Your task to perform on an android device: What does the iPhone 8 look like on eBay? Image 0: 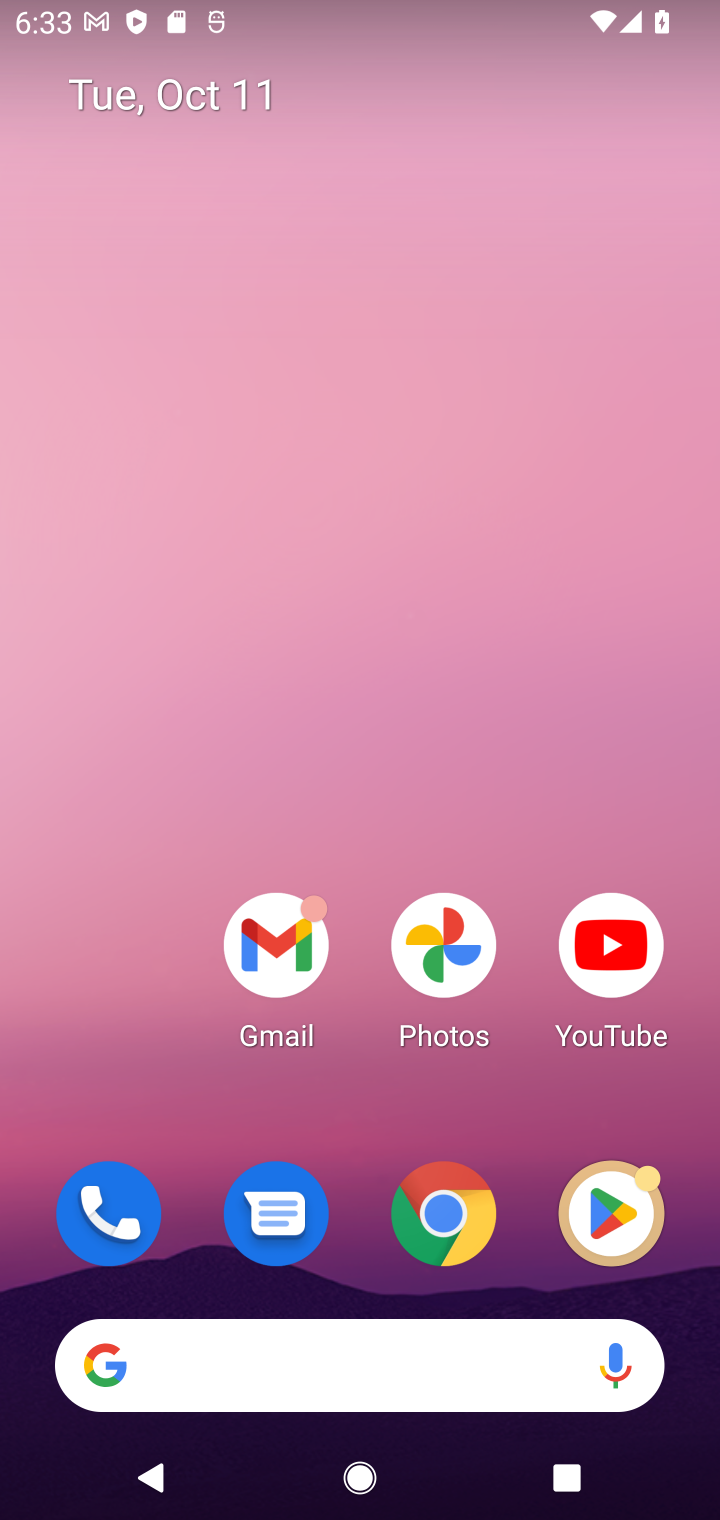
Step 0: drag from (324, 716) to (368, 377)
Your task to perform on an android device: What does the iPhone 8 look like on eBay? Image 1: 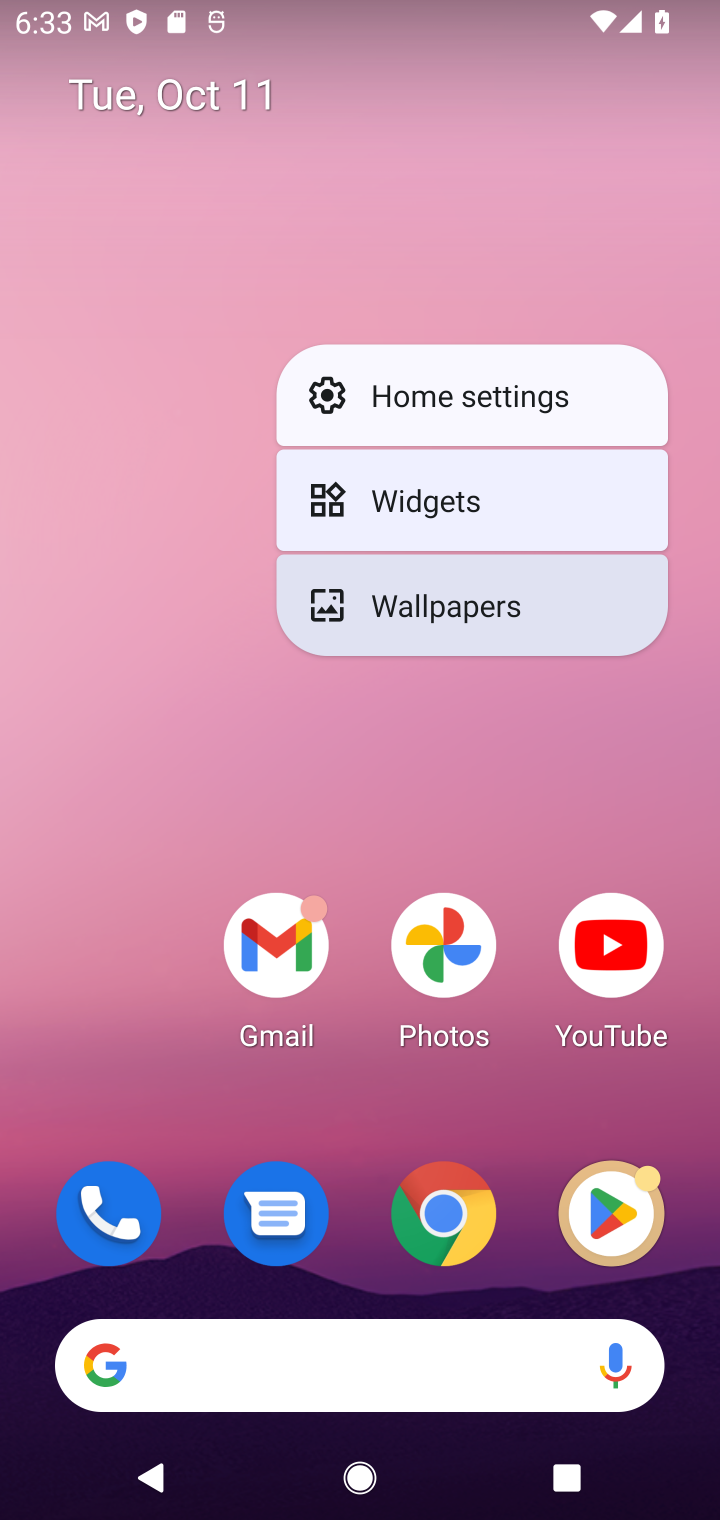
Step 1: click (194, 513)
Your task to perform on an android device: What does the iPhone 8 look like on eBay? Image 2: 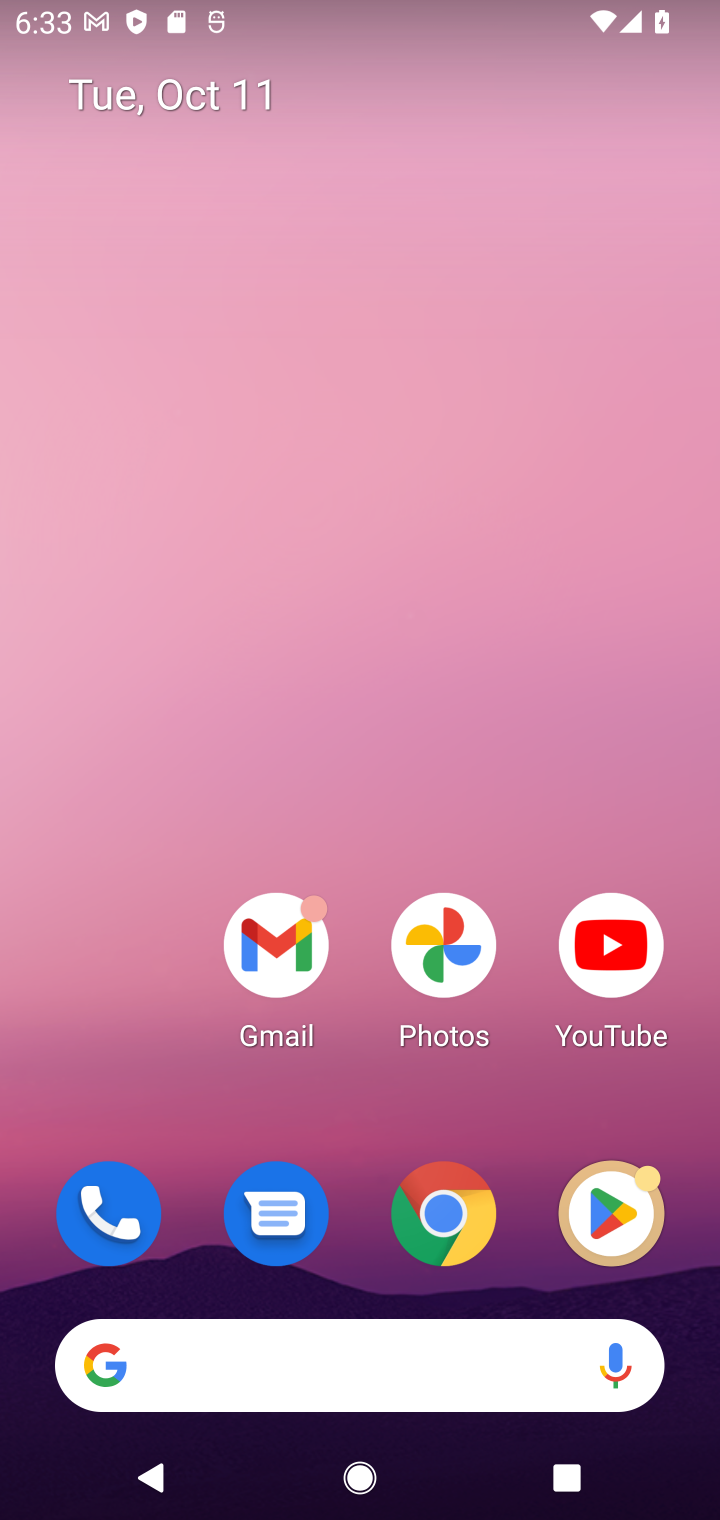
Step 2: drag from (352, 1254) to (410, 497)
Your task to perform on an android device: What does the iPhone 8 look like on eBay? Image 3: 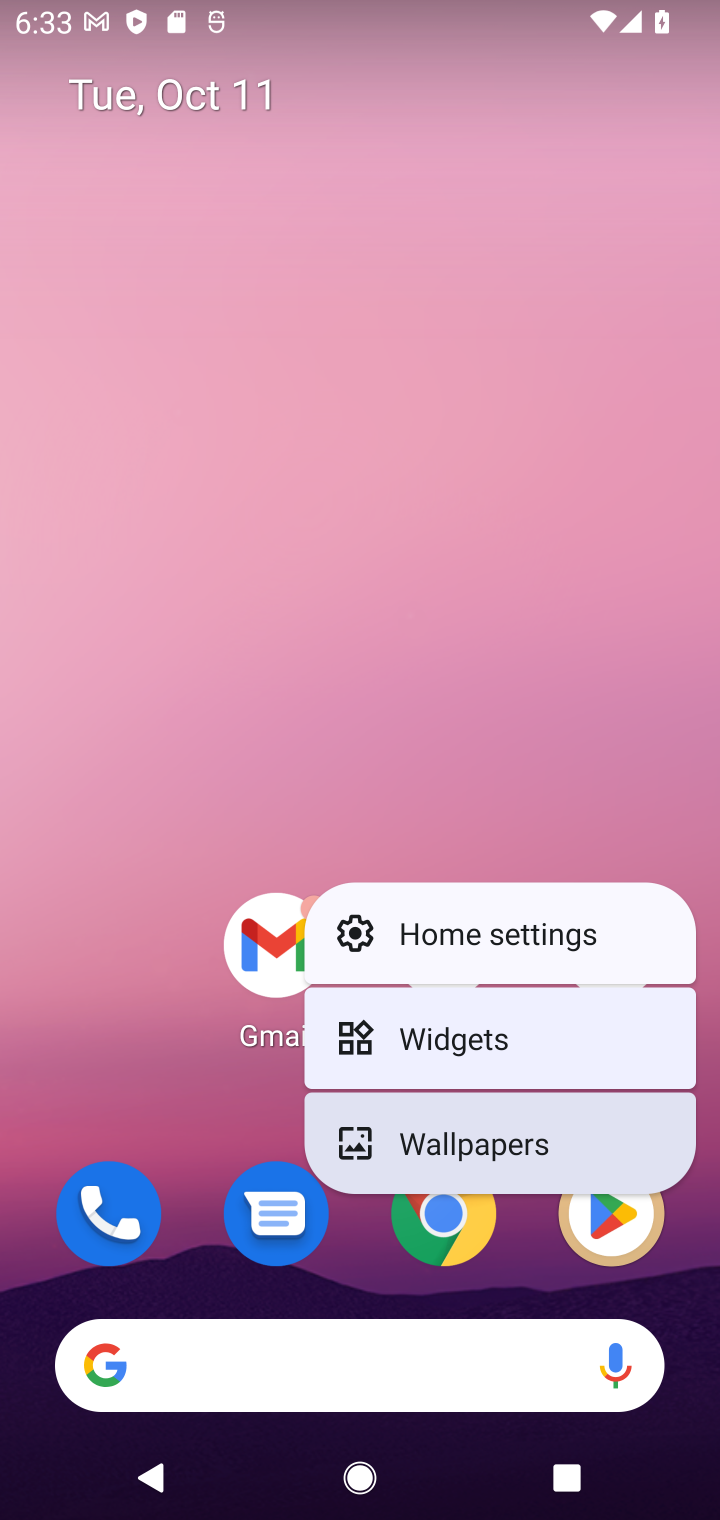
Step 3: click (48, 967)
Your task to perform on an android device: What does the iPhone 8 look like on eBay? Image 4: 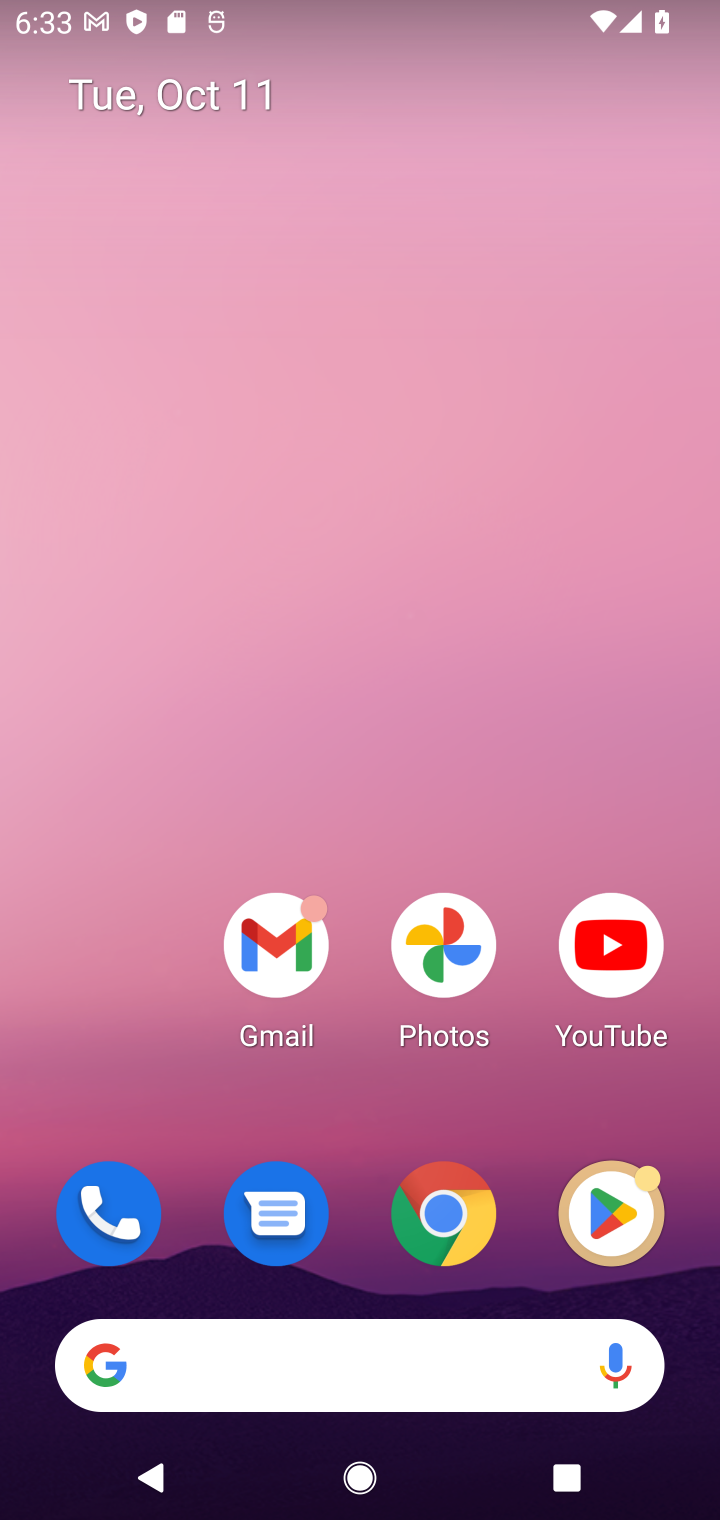
Step 4: click (355, 278)
Your task to perform on an android device: What does the iPhone 8 look like on eBay? Image 5: 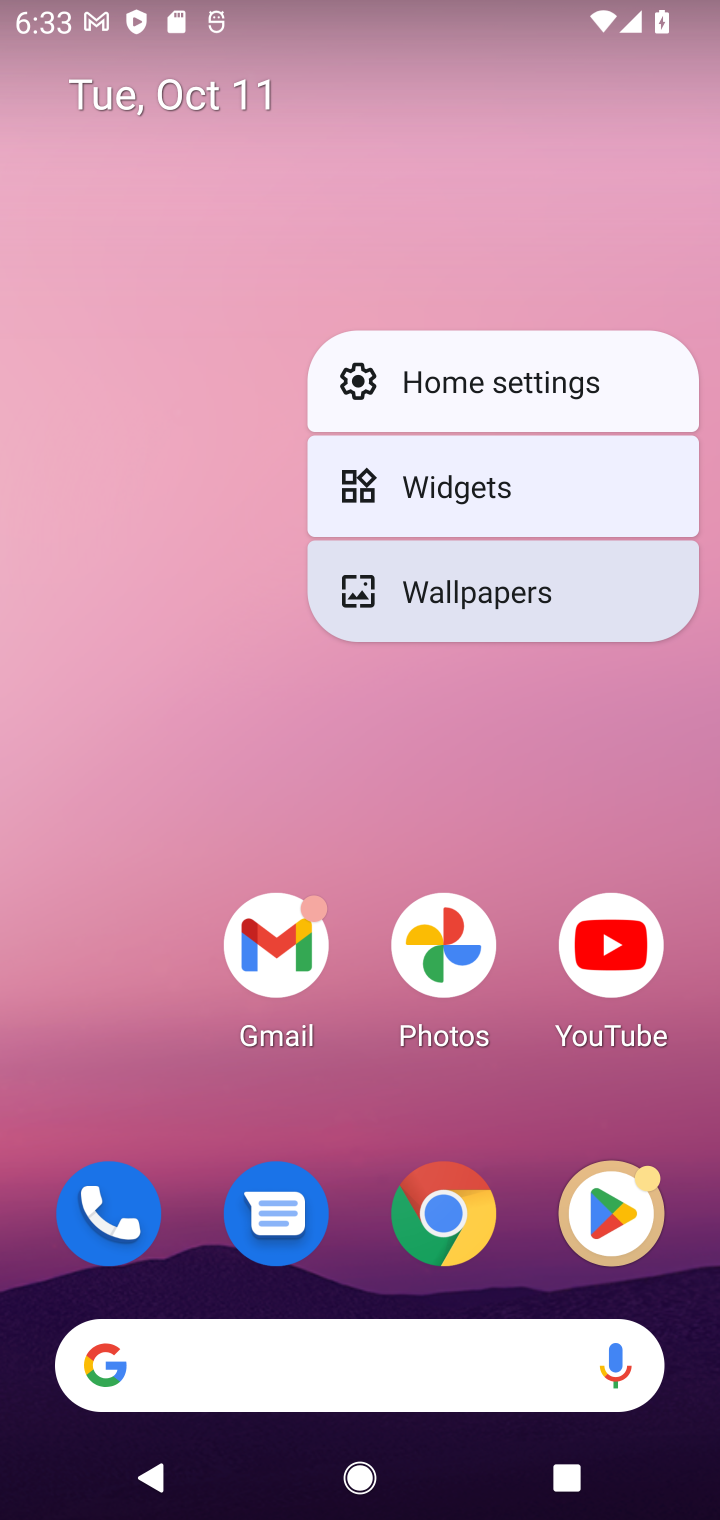
Step 5: click (337, 655)
Your task to perform on an android device: What does the iPhone 8 look like on eBay? Image 6: 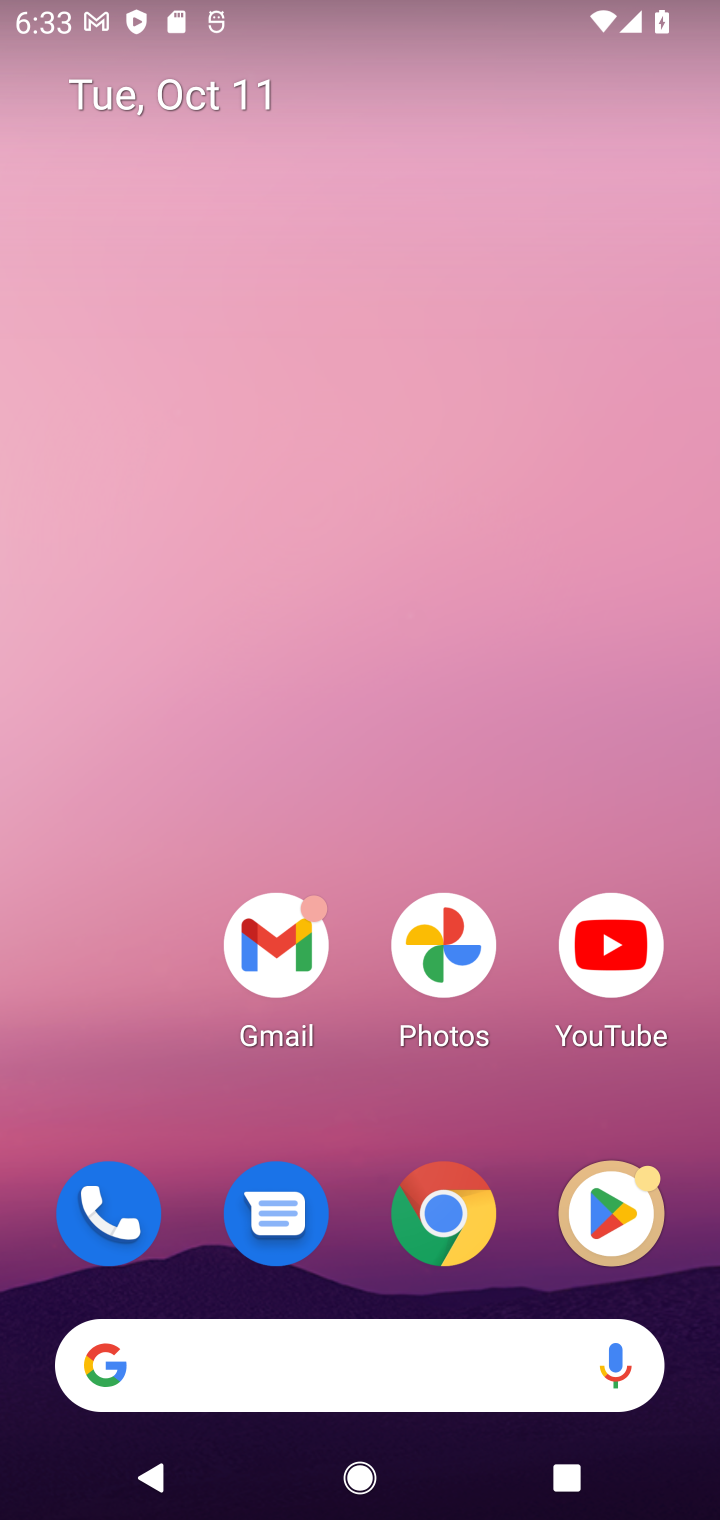
Step 6: drag from (312, 1088) to (326, 524)
Your task to perform on an android device: What does the iPhone 8 look like on eBay? Image 7: 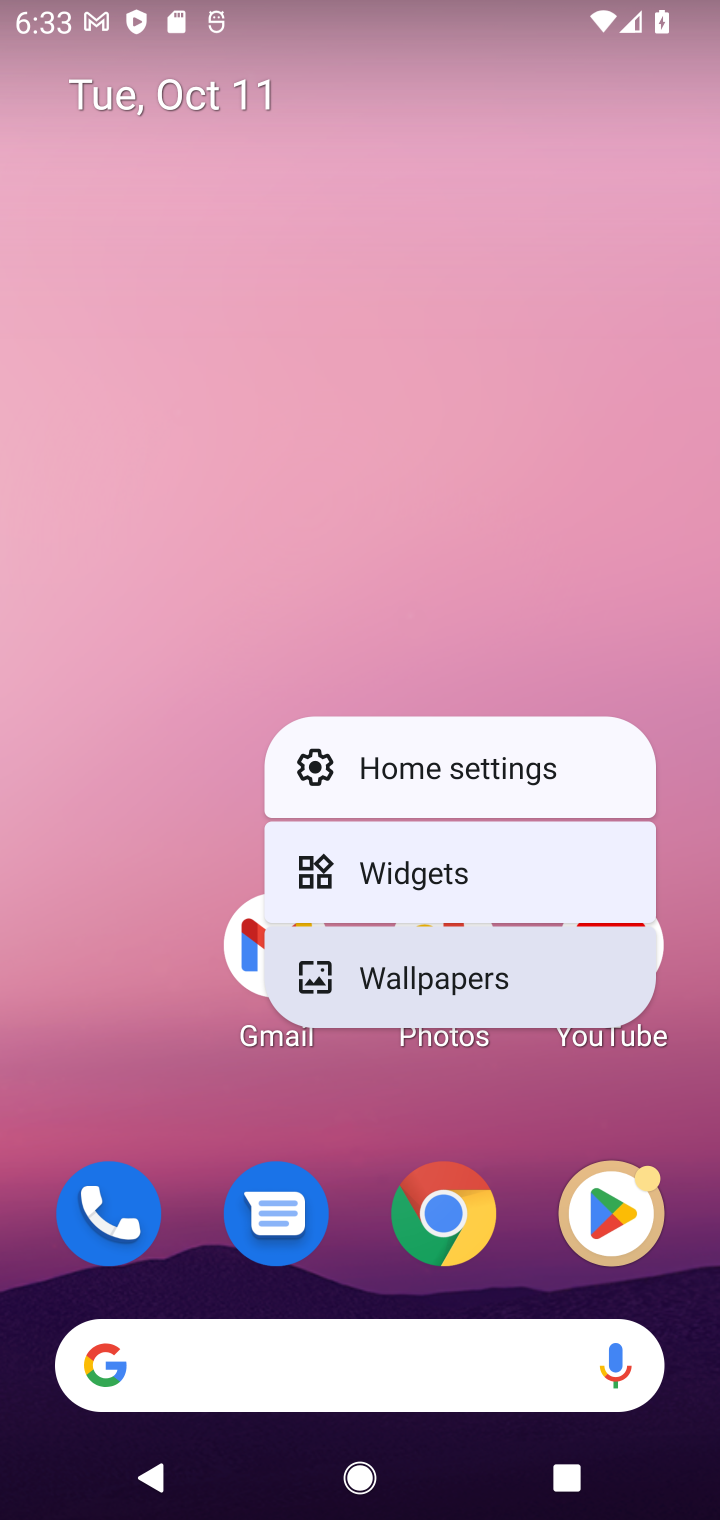
Step 7: click (377, 620)
Your task to perform on an android device: What does the iPhone 8 look like on eBay? Image 8: 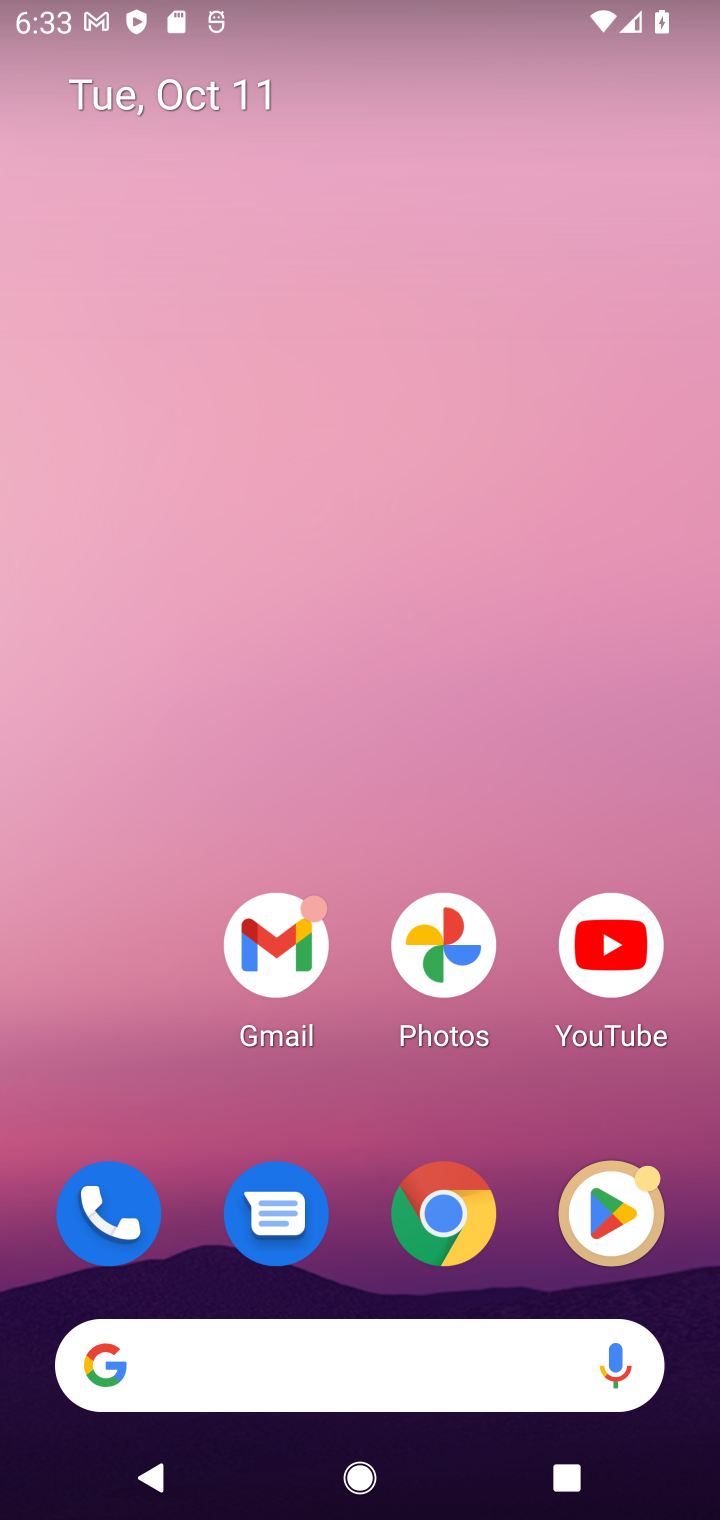
Step 8: click (321, 210)
Your task to perform on an android device: What does the iPhone 8 look like on eBay? Image 9: 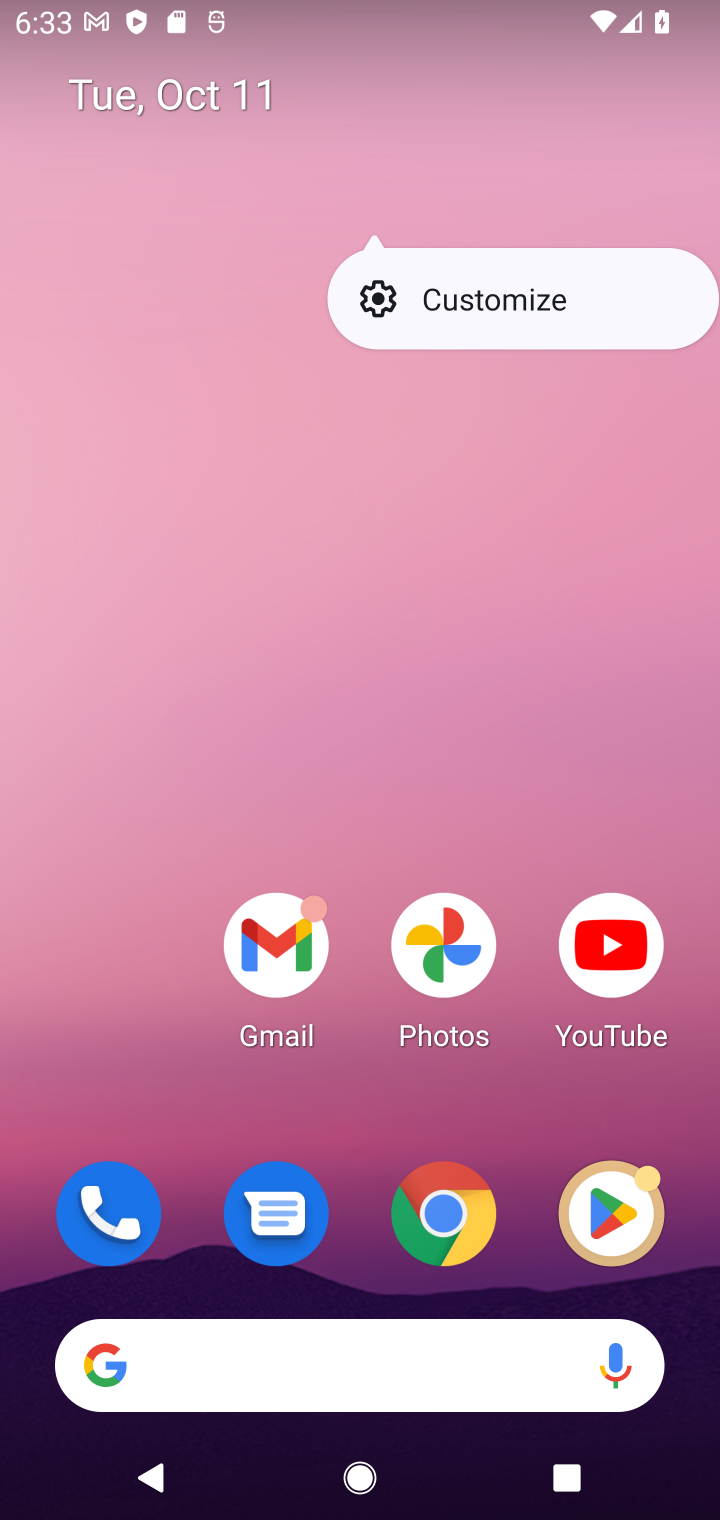
Step 9: click (354, 726)
Your task to perform on an android device: What does the iPhone 8 look like on eBay? Image 10: 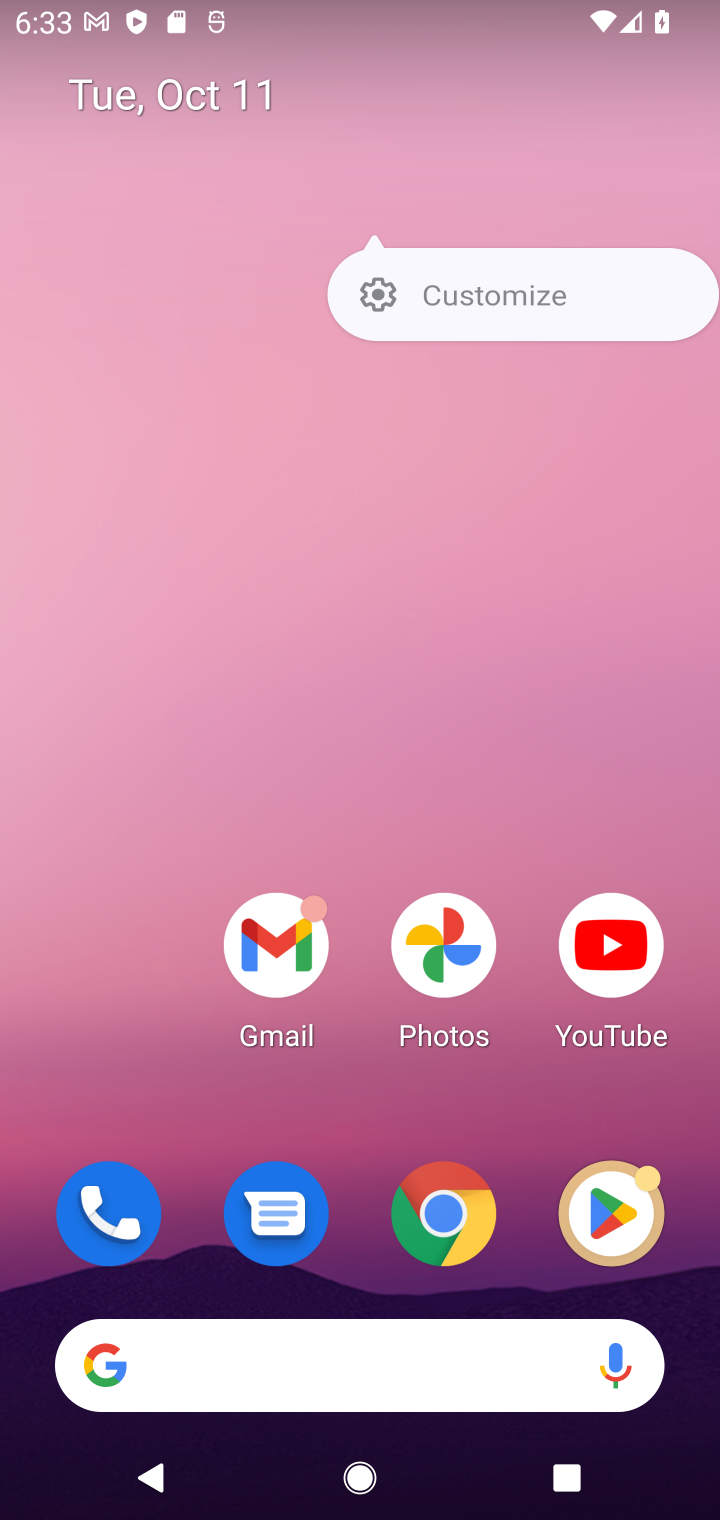
Step 10: drag from (397, 1308) to (329, 710)
Your task to perform on an android device: What does the iPhone 8 look like on eBay? Image 11: 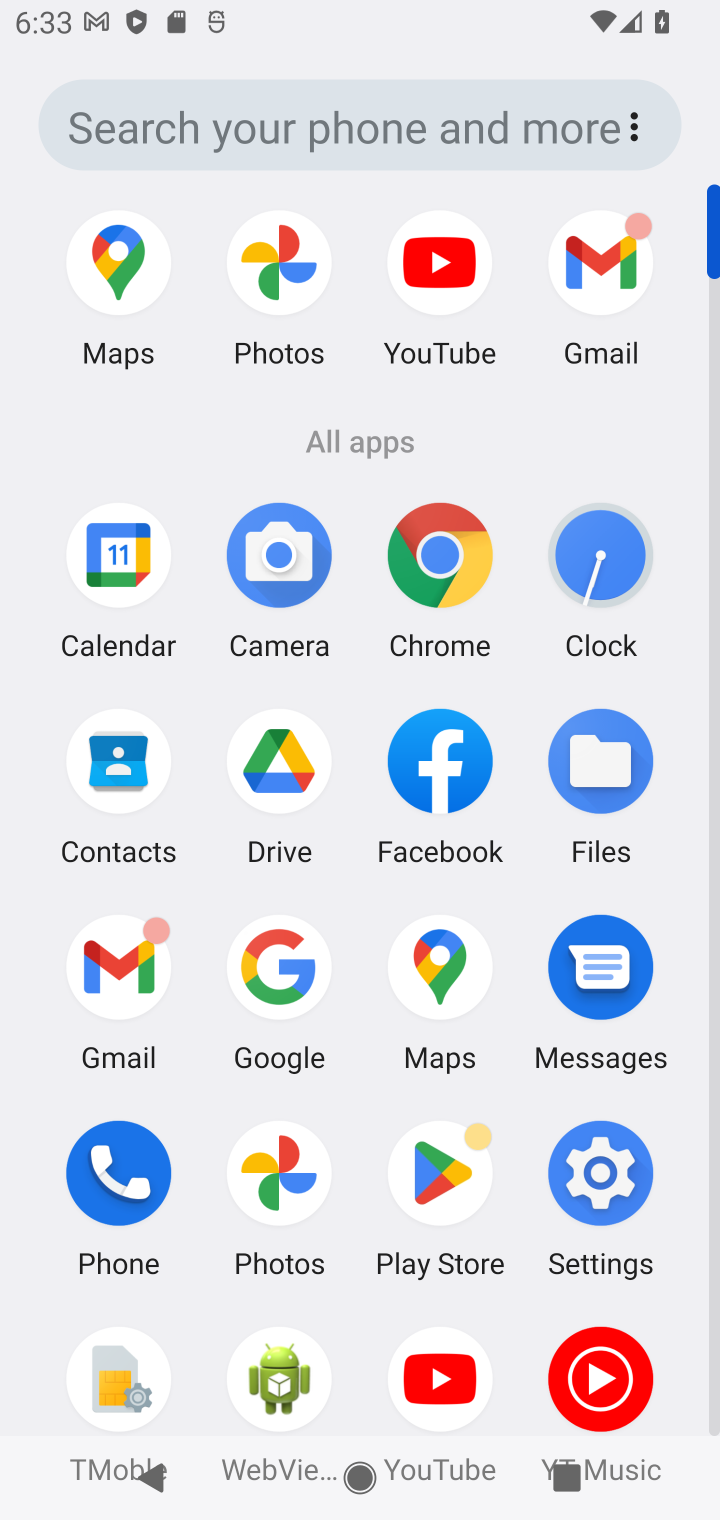
Step 11: click (272, 982)
Your task to perform on an android device: What does the iPhone 8 look like on eBay? Image 12: 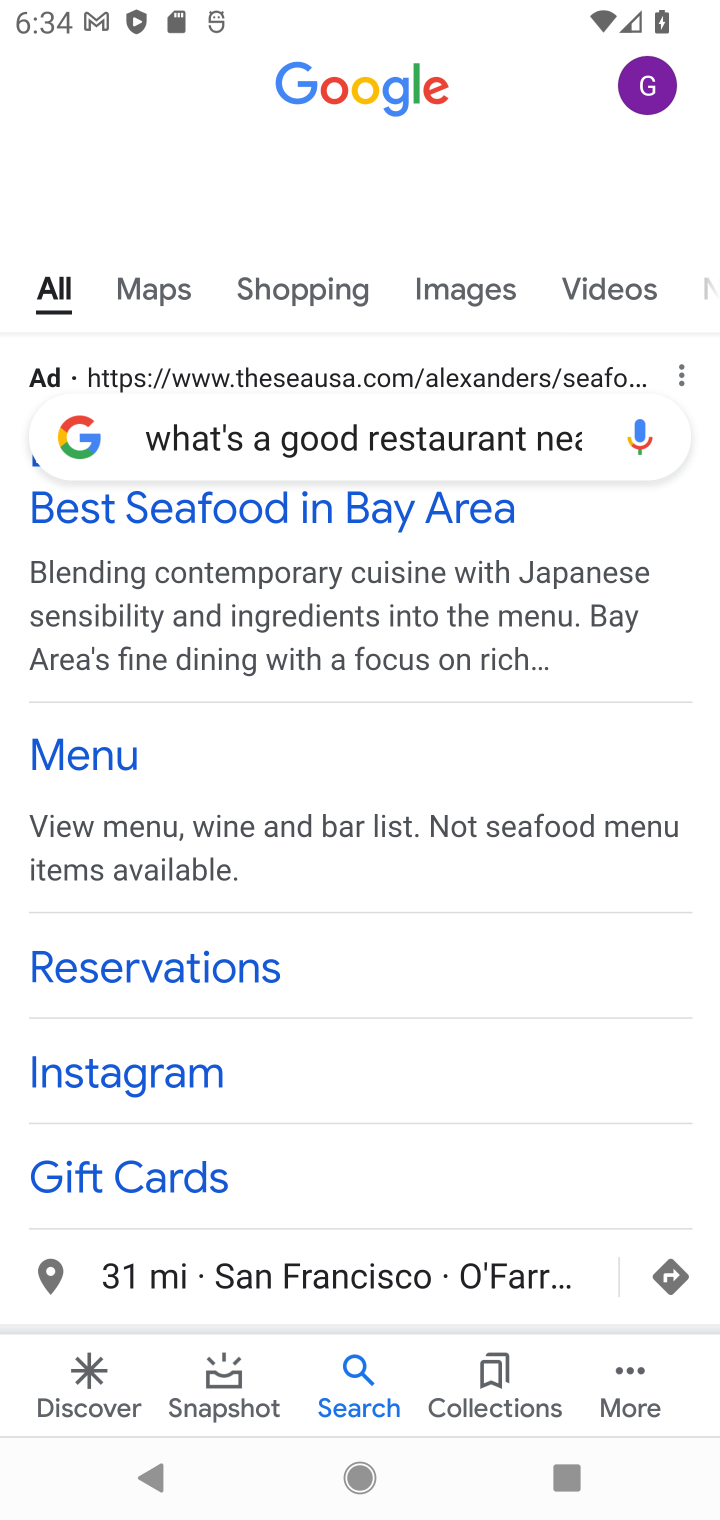
Step 12: click (336, 431)
Your task to perform on an android device: What does the iPhone 8 look like on eBay? Image 13: 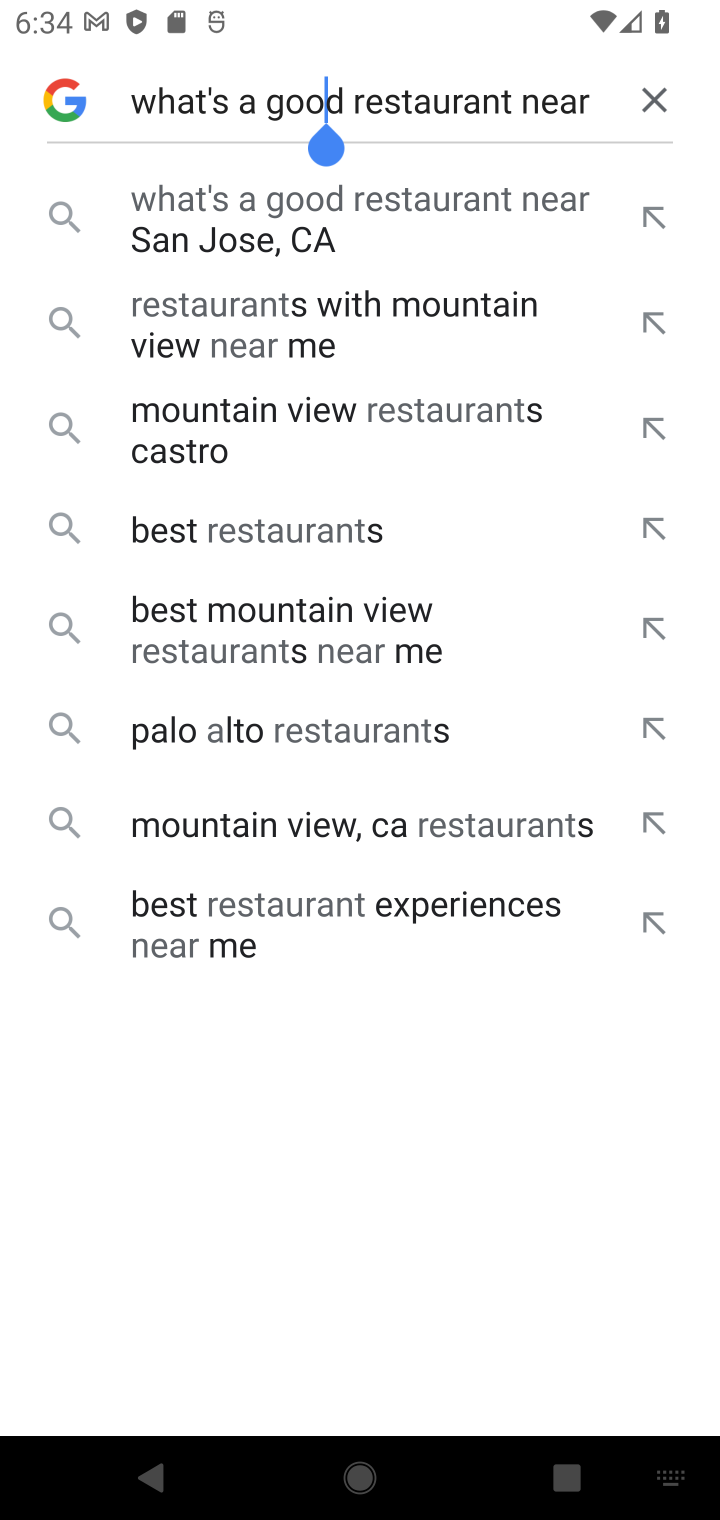
Step 13: click (652, 106)
Your task to perform on an android device: What does the iPhone 8 look like on eBay? Image 14: 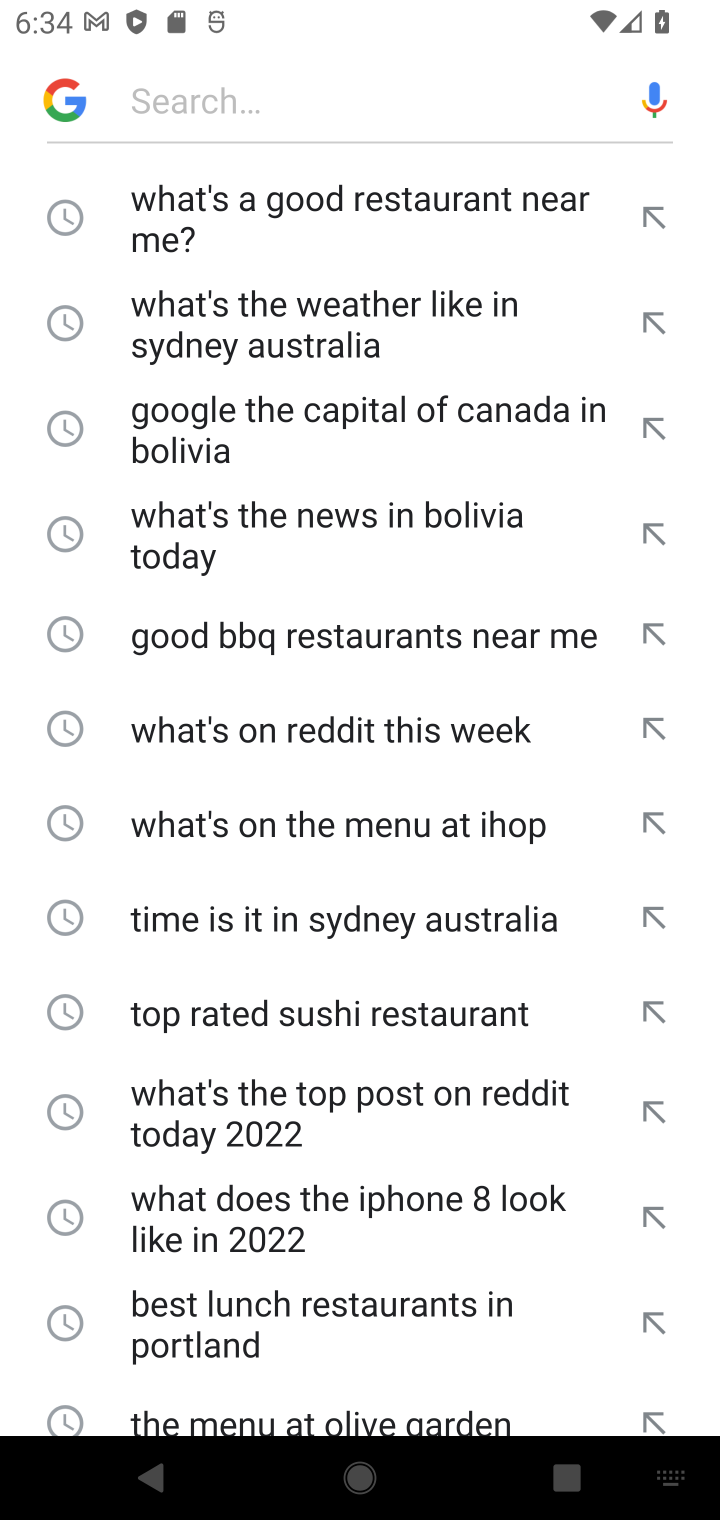
Step 14: click (304, 68)
Your task to perform on an android device: What does the iPhone 8 look like on eBay? Image 15: 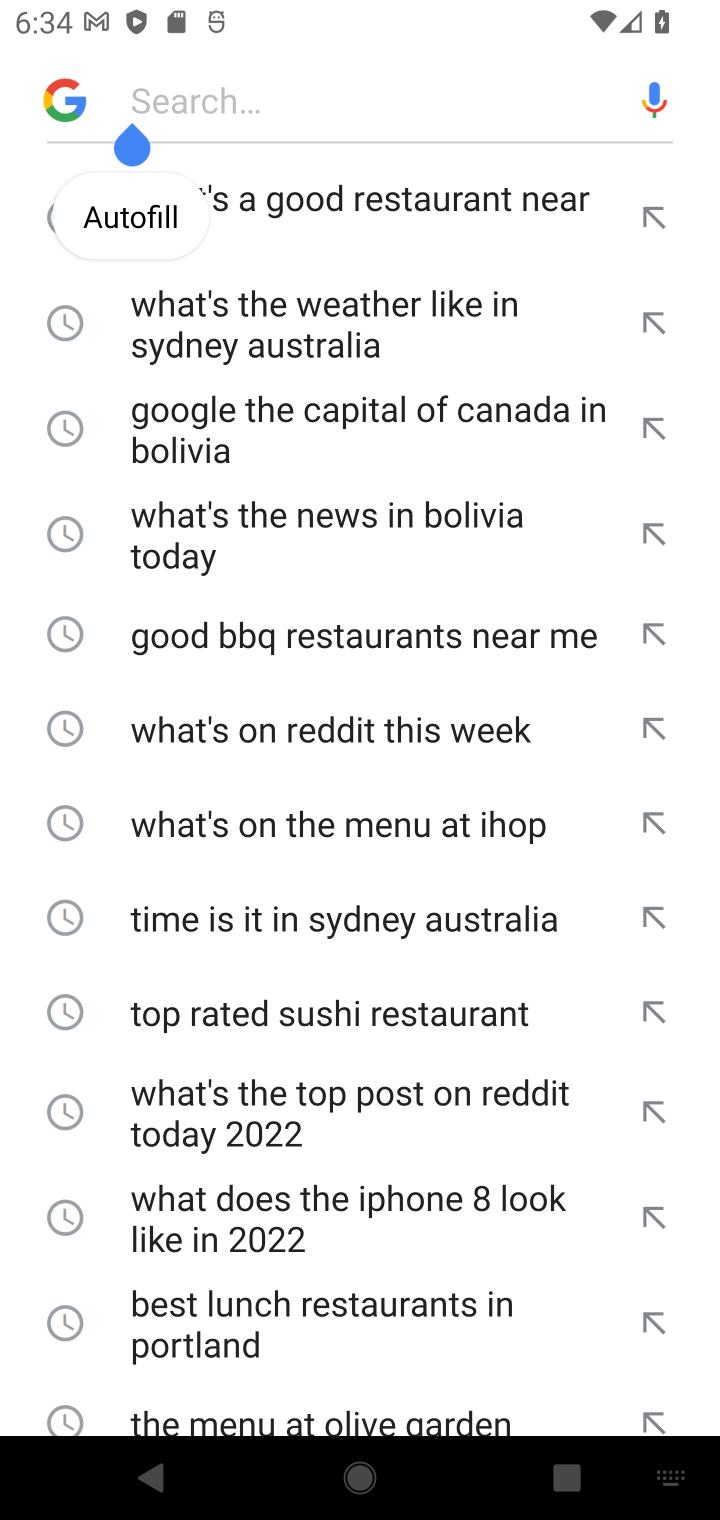
Step 15: type "What does the iPhone 8 look like on eBay "
Your task to perform on an android device: What does the iPhone 8 look like on eBay? Image 16: 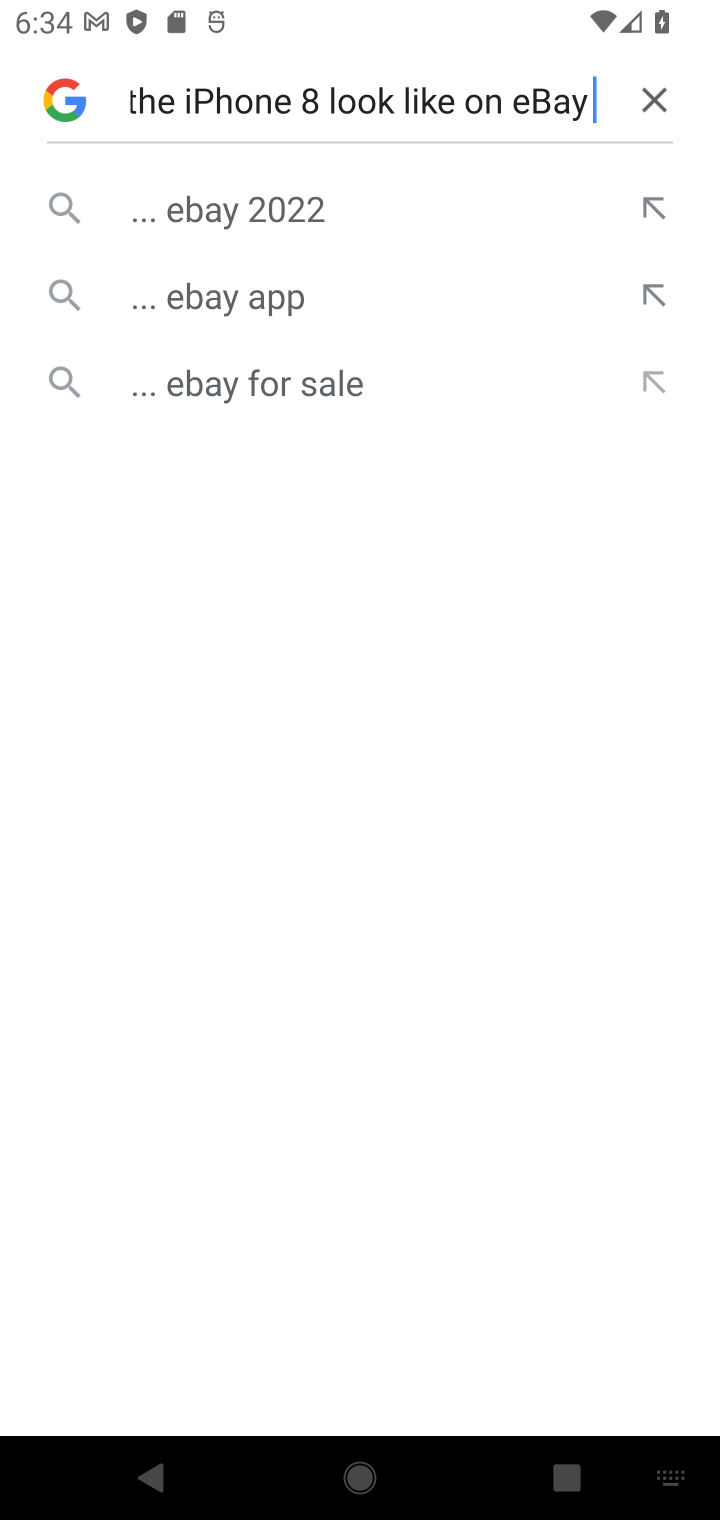
Step 16: click (269, 196)
Your task to perform on an android device: What does the iPhone 8 look like on eBay? Image 17: 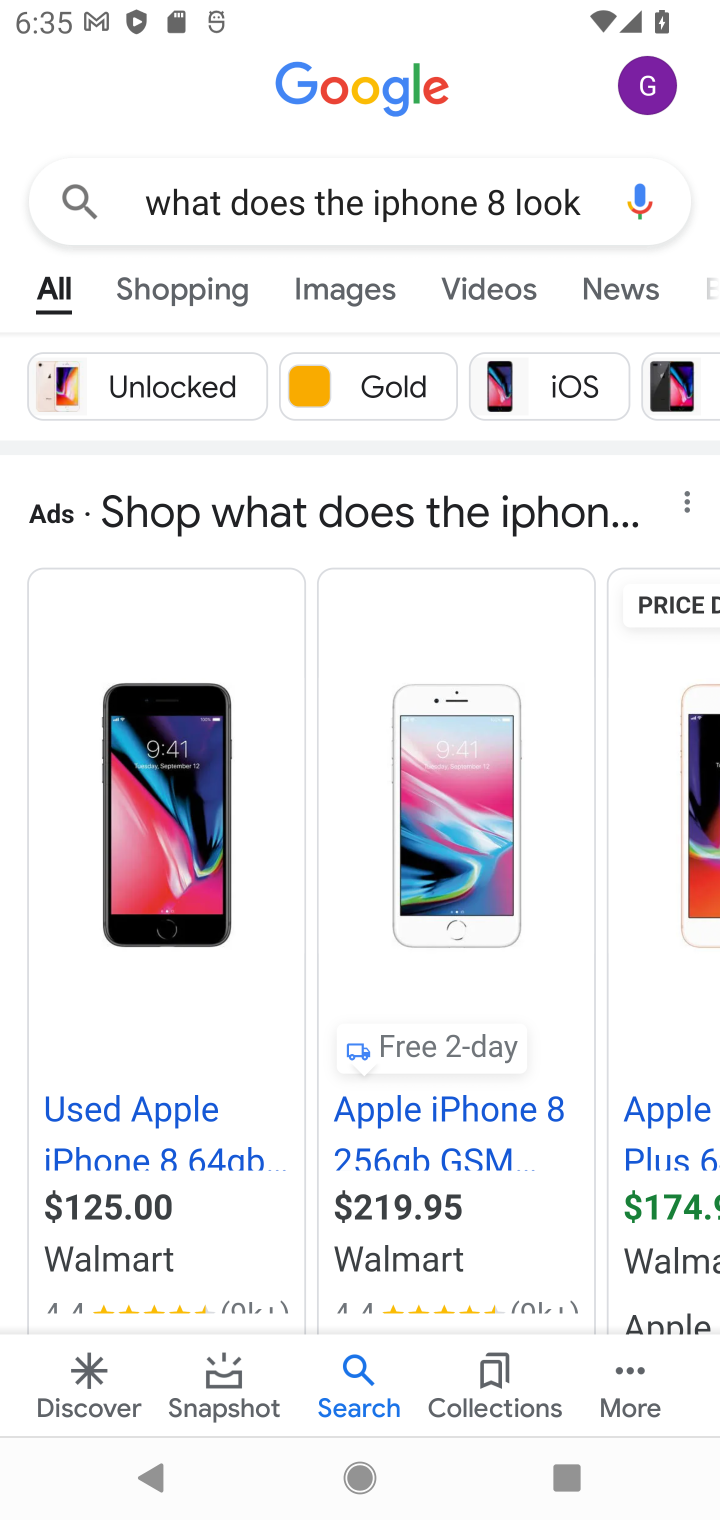
Step 17: drag from (256, 1123) to (182, 271)
Your task to perform on an android device: What does the iPhone 8 look like on eBay? Image 18: 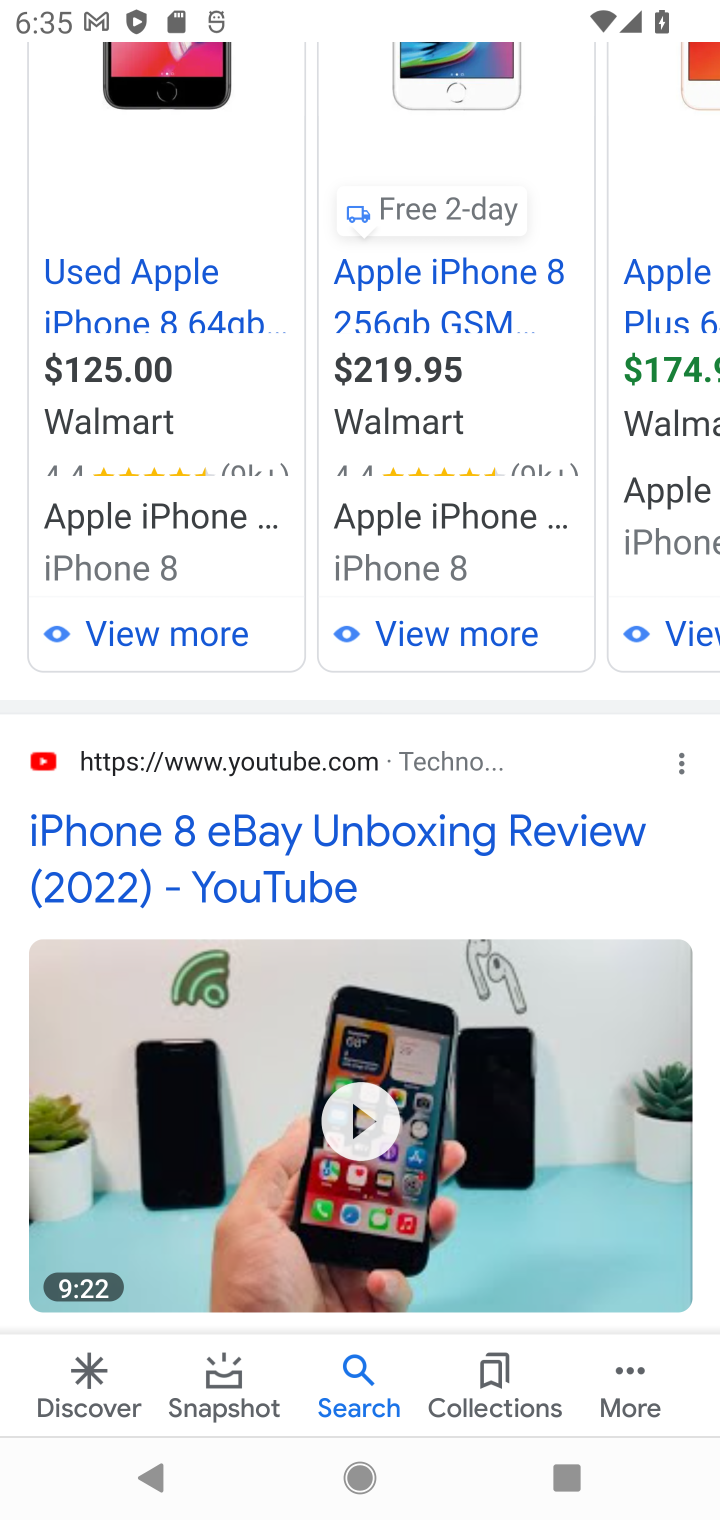
Step 18: click (274, 849)
Your task to perform on an android device: What does the iPhone 8 look like on eBay? Image 19: 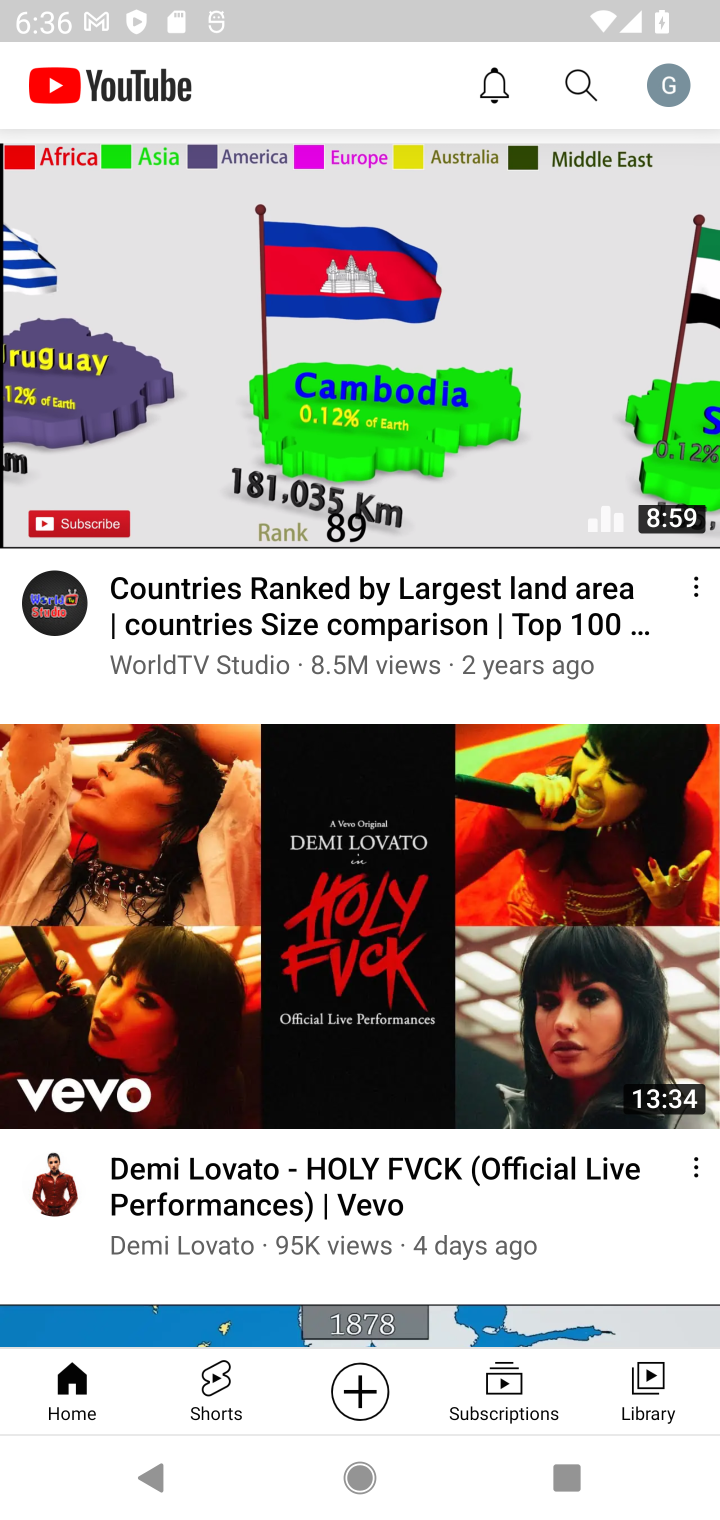
Step 19: task complete